Your task to perform on an android device: clear history in the chrome app Image 0: 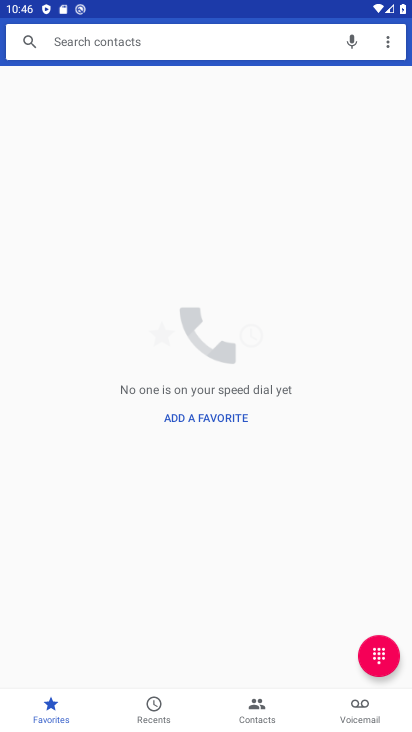
Step 0: press home button
Your task to perform on an android device: clear history in the chrome app Image 1: 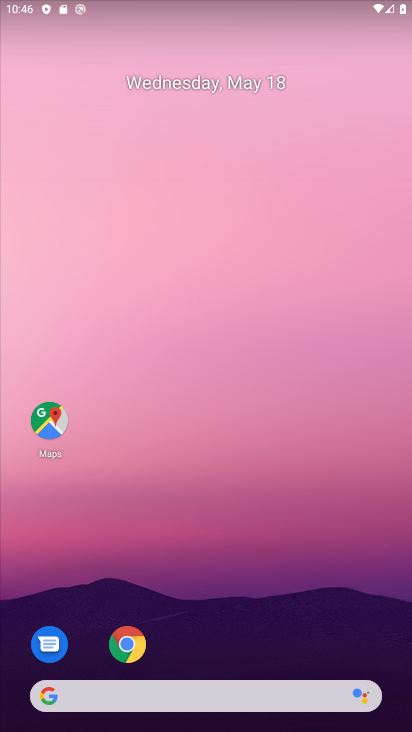
Step 1: drag from (312, 648) to (318, 66)
Your task to perform on an android device: clear history in the chrome app Image 2: 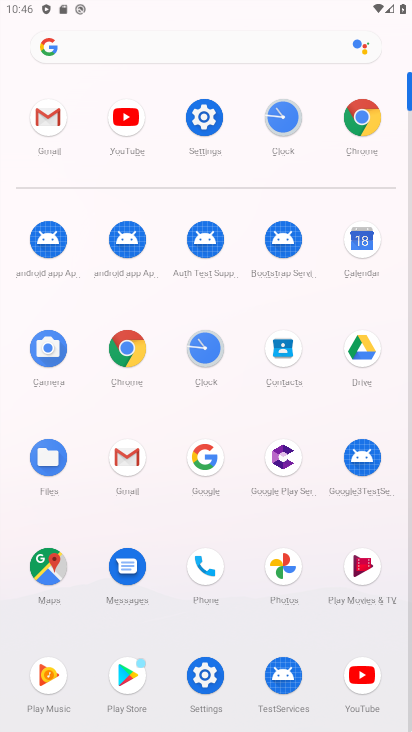
Step 2: click (112, 339)
Your task to perform on an android device: clear history in the chrome app Image 3: 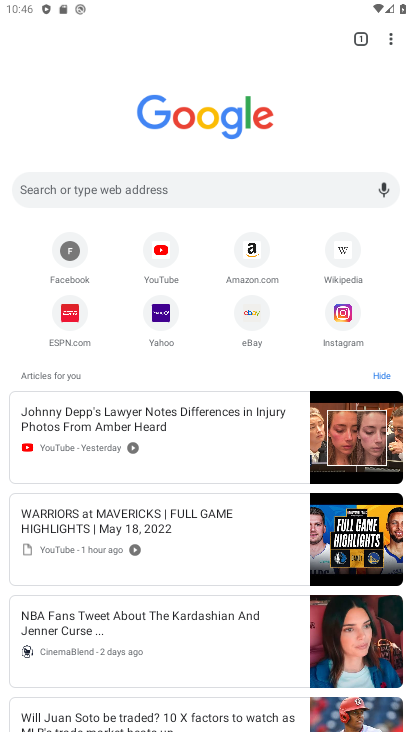
Step 3: click (393, 36)
Your task to perform on an android device: clear history in the chrome app Image 4: 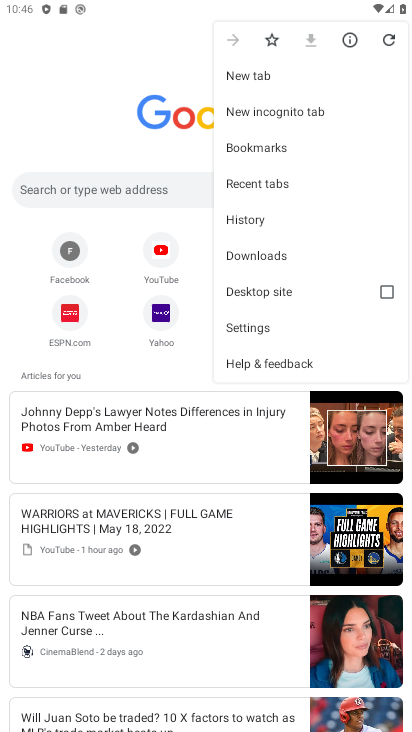
Step 4: click (257, 235)
Your task to perform on an android device: clear history in the chrome app Image 5: 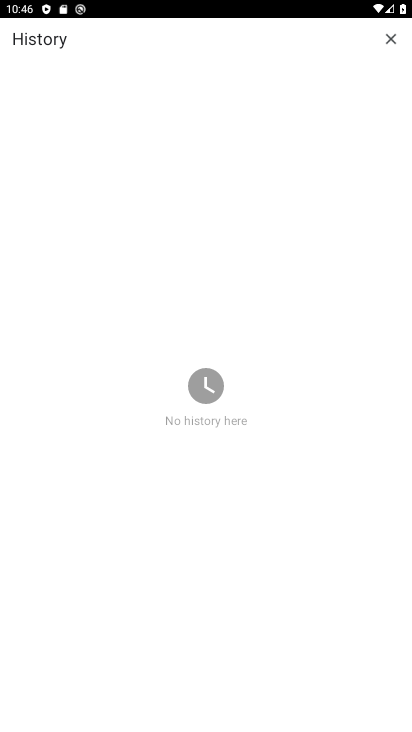
Step 5: task complete